Your task to perform on an android device: turn off data saver in the chrome app Image 0: 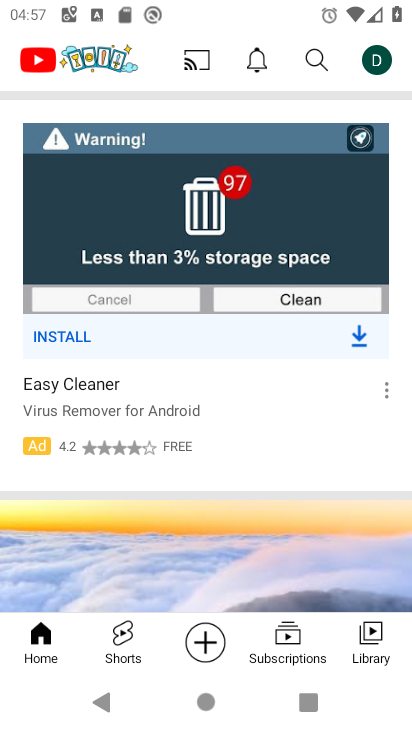
Step 0: press home button
Your task to perform on an android device: turn off data saver in the chrome app Image 1: 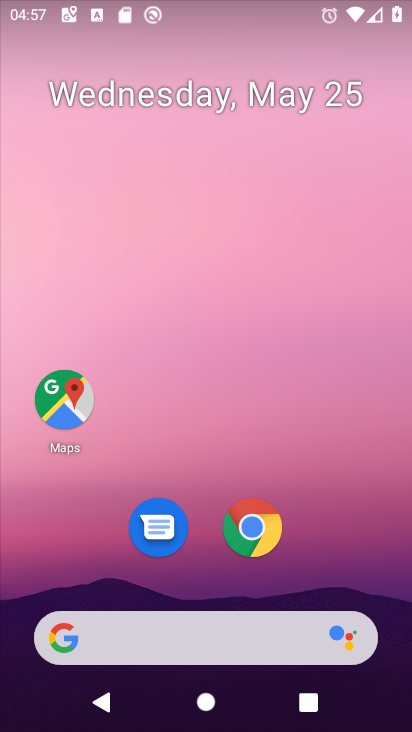
Step 1: drag from (209, 465) to (222, 23)
Your task to perform on an android device: turn off data saver in the chrome app Image 2: 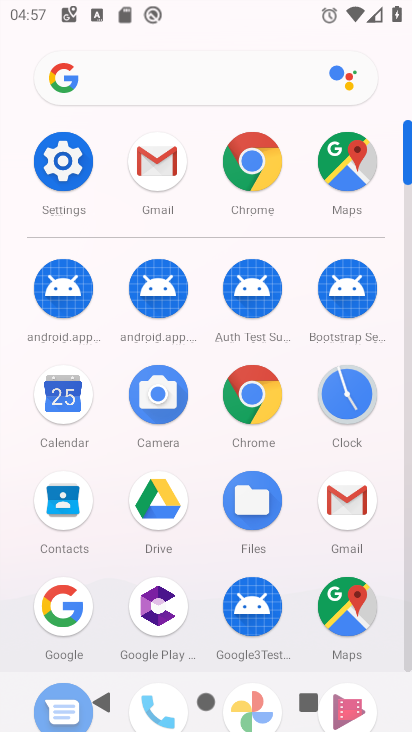
Step 2: click (251, 182)
Your task to perform on an android device: turn off data saver in the chrome app Image 3: 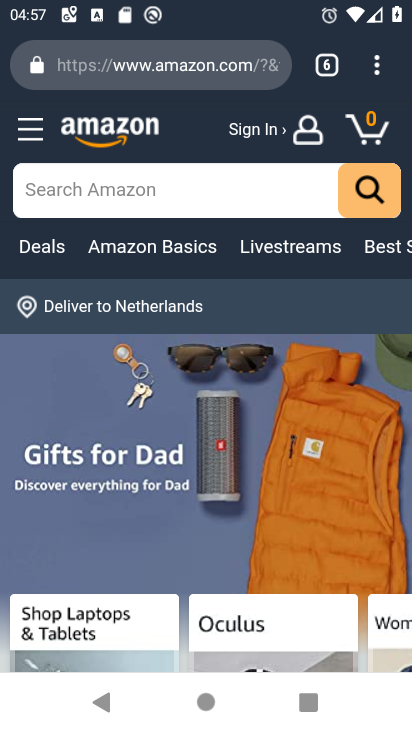
Step 3: click (374, 68)
Your task to perform on an android device: turn off data saver in the chrome app Image 4: 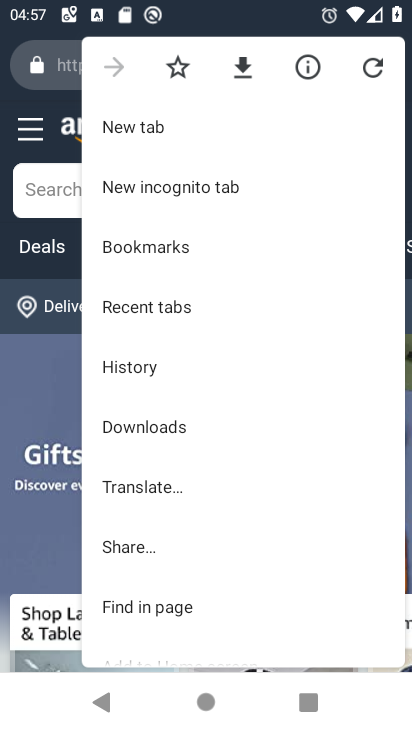
Step 4: drag from (284, 513) to (283, 168)
Your task to perform on an android device: turn off data saver in the chrome app Image 5: 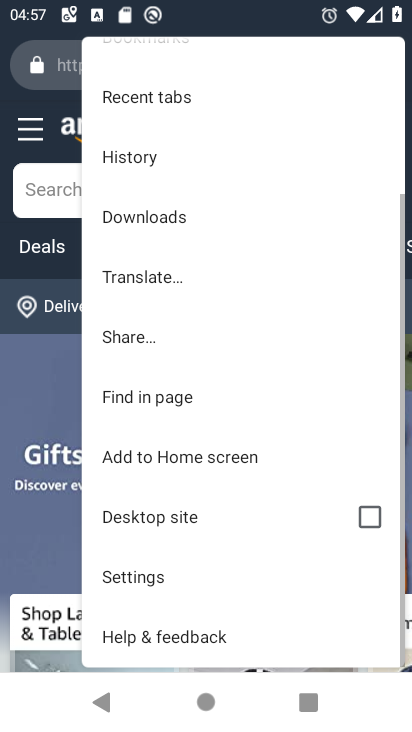
Step 5: click (141, 579)
Your task to perform on an android device: turn off data saver in the chrome app Image 6: 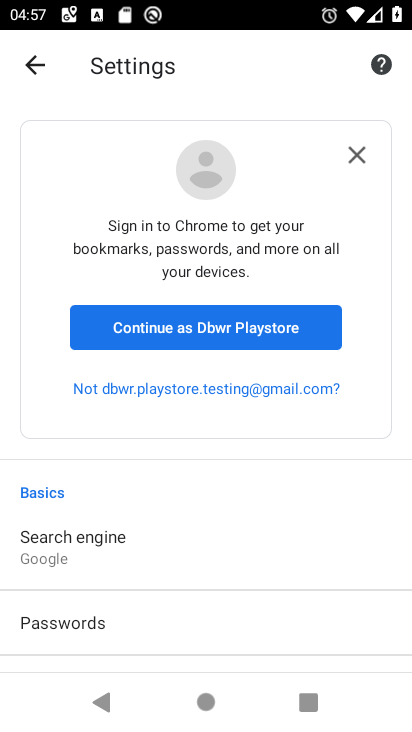
Step 6: drag from (260, 555) to (285, 244)
Your task to perform on an android device: turn off data saver in the chrome app Image 7: 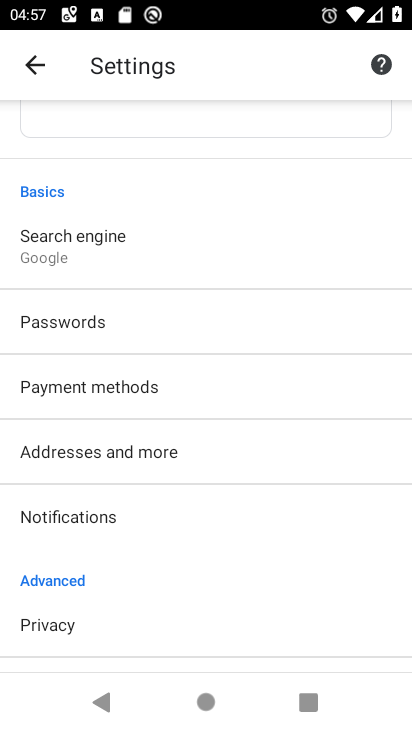
Step 7: drag from (236, 529) to (297, 233)
Your task to perform on an android device: turn off data saver in the chrome app Image 8: 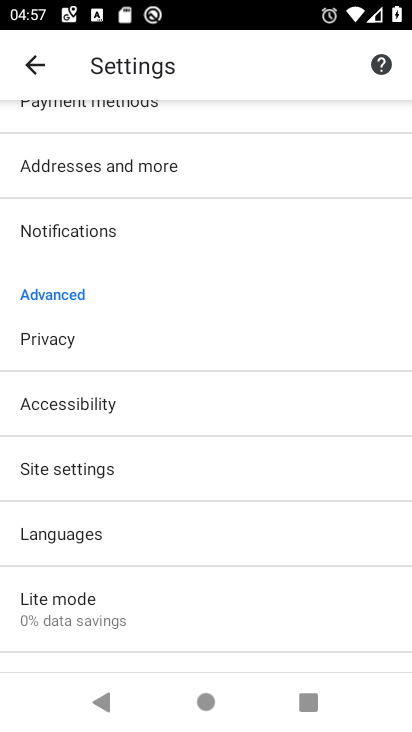
Step 8: click (109, 611)
Your task to perform on an android device: turn off data saver in the chrome app Image 9: 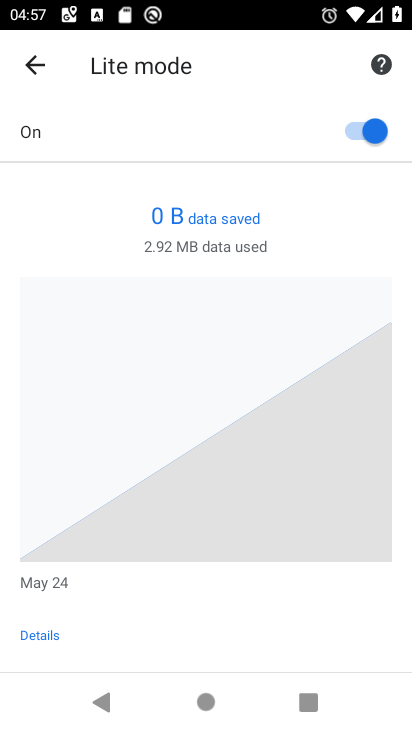
Step 9: click (377, 131)
Your task to perform on an android device: turn off data saver in the chrome app Image 10: 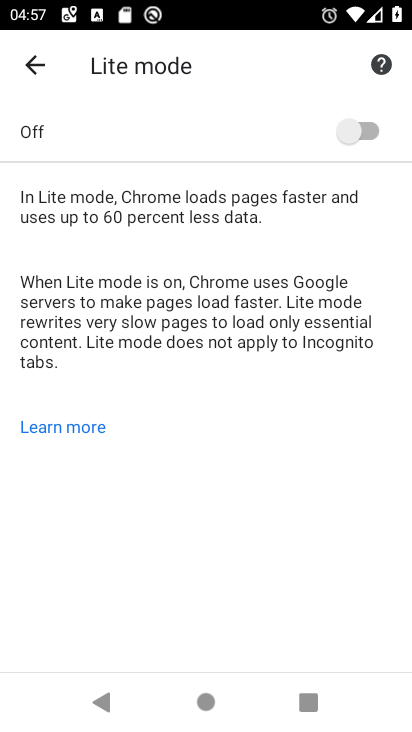
Step 10: task complete